Your task to perform on an android device: Open settings Image 0: 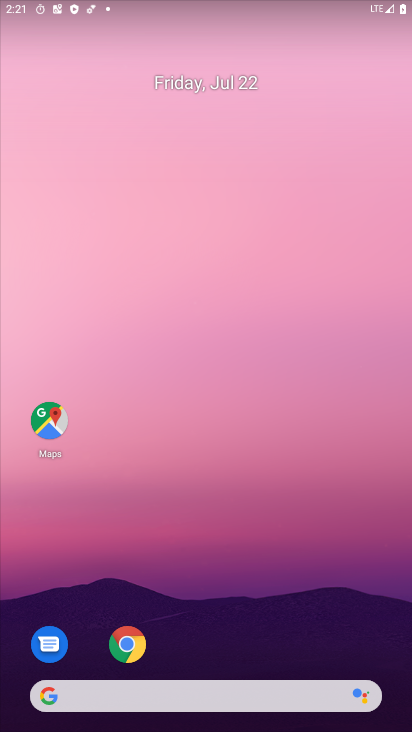
Step 0: drag from (254, 612) to (224, 117)
Your task to perform on an android device: Open settings Image 1: 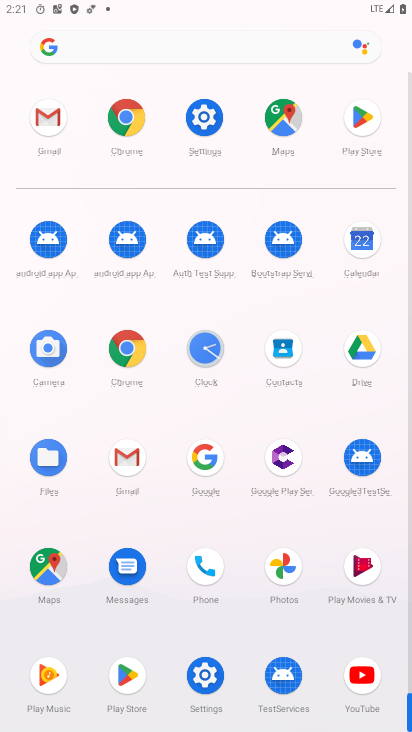
Step 1: click (210, 131)
Your task to perform on an android device: Open settings Image 2: 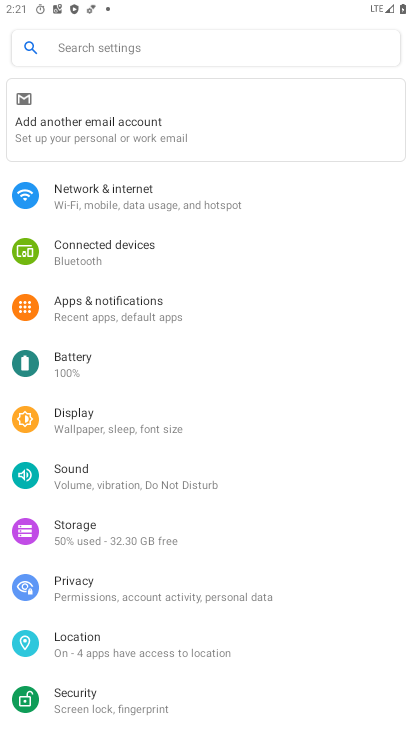
Step 2: task complete